Your task to perform on an android device: Open the Play Movies app and select the watchlist tab. Image 0: 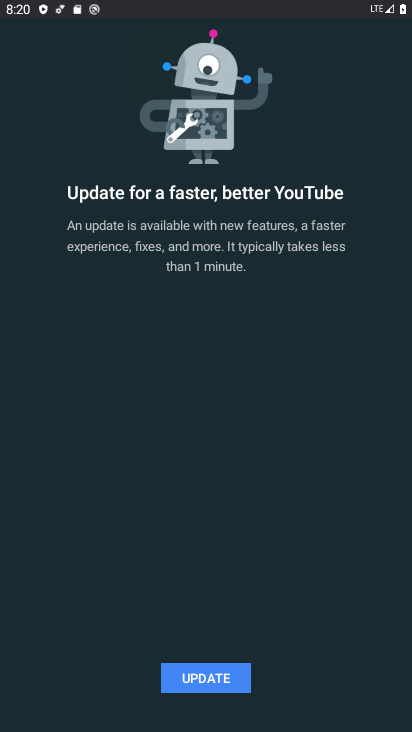
Step 0: press home button
Your task to perform on an android device: Open the Play Movies app and select the watchlist tab. Image 1: 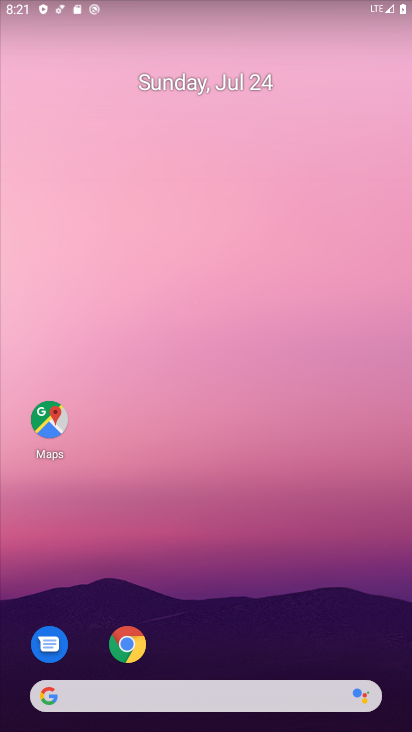
Step 1: drag from (9, 546) to (259, 51)
Your task to perform on an android device: Open the Play Movies app and select the watchlist tab. Image 2: 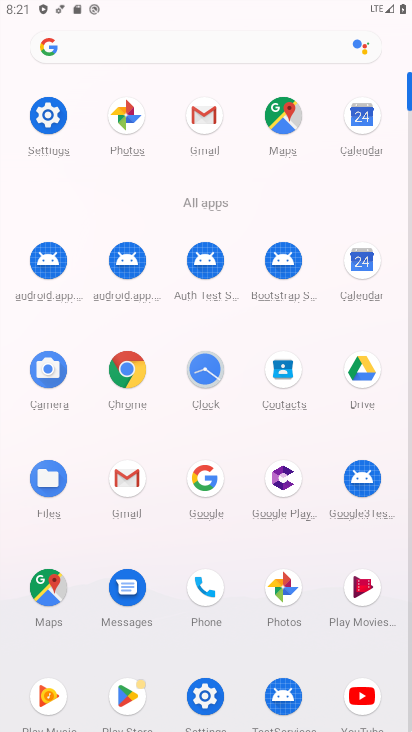
Step 2: click (367, 608)
Your task to perform on an android device: Open the Play Movies app and select the watchlist tab. Image 3: 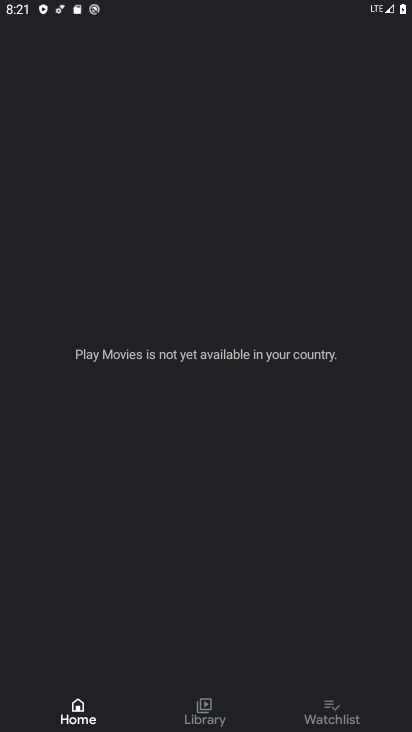
Step 3: click (340, 711)
Your task to perform on an android device: Open the Play Movies app and select the watchlist tab. Image 4: 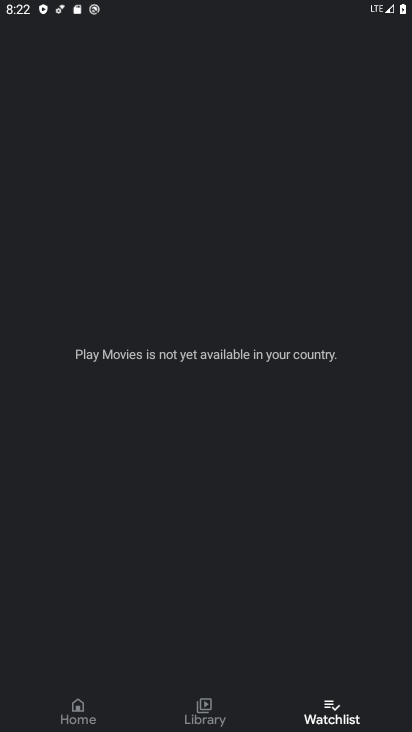
Step 4: task complete